Your task to perform on an android device: Go to display settings Image 0: 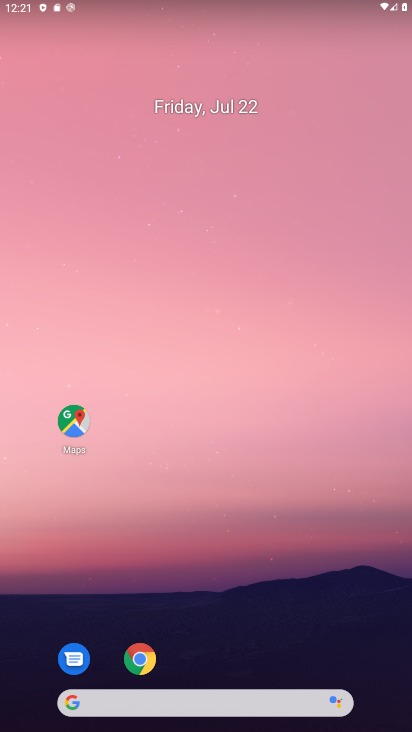
Step 0: drag from (230, 625) to (205, 384)
Your task to perform on an android device: Go to display settings Image 1: 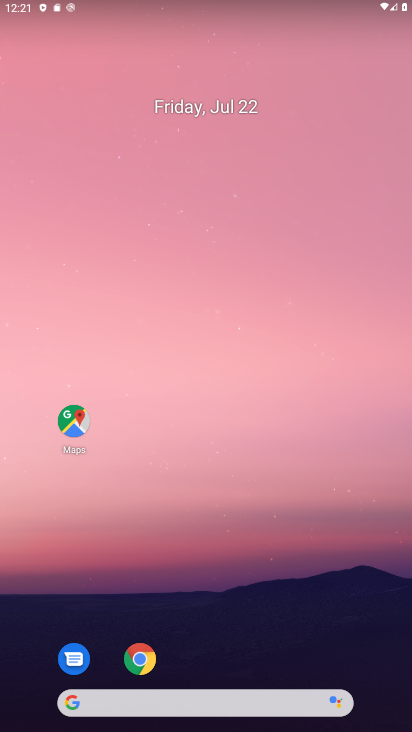
Step 1: drag from (233, 673) to (239, 505)
Your task to perform on an android device: Go to display settings Image 2: 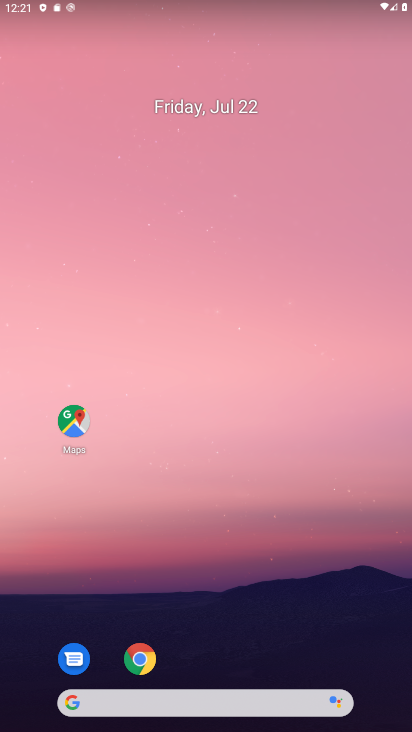
Step 2: drag from (260, 633) to (246, 202)
Your task to perform on an android device: Go to display settings Image 3: 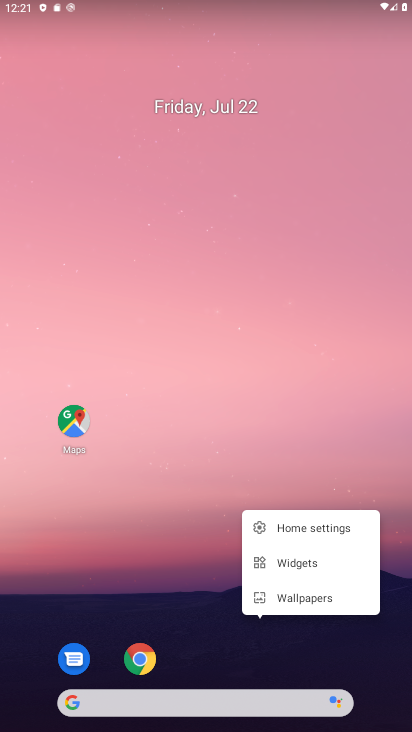
Step 3: click (168, 428)
Your task to perform on an android device: Go to display settings Image 4: 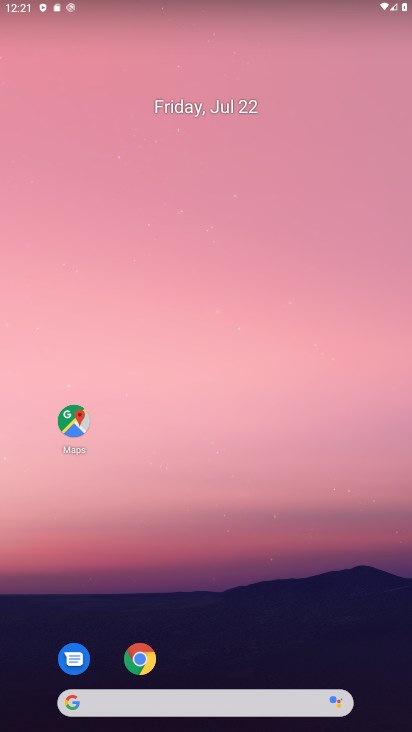
Step 4: drag from (251, 681) to (178, 2)
Your task to perform on an android device: Go to display settings Image 5: 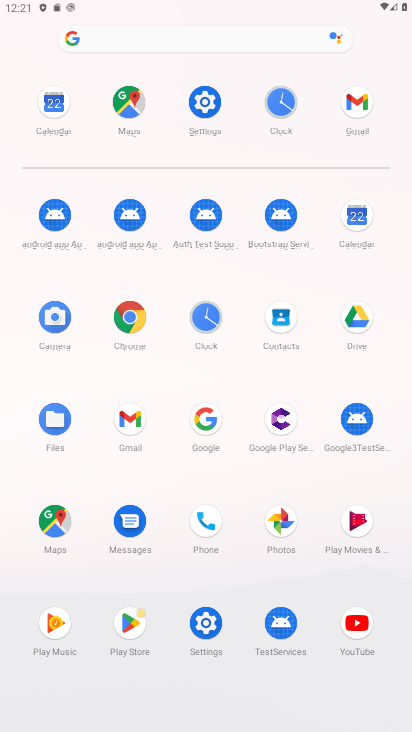
Step 5: click (217, 107)
Your task to perform on an android device: Go to display settings Image 6: 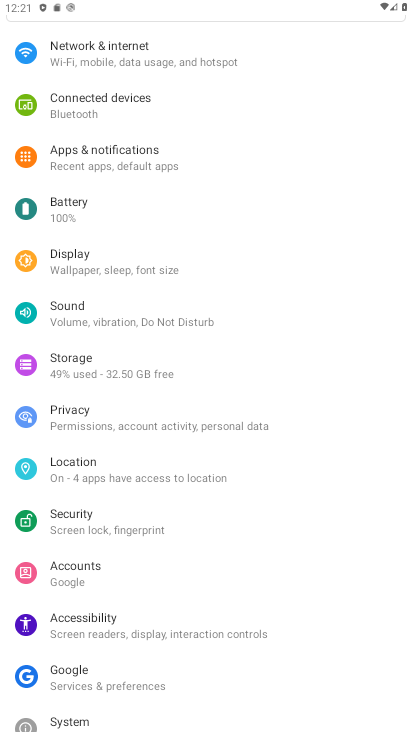
Step 6: click (125, 255)
Your task to perform on an android device: Go to display settings Image 7: 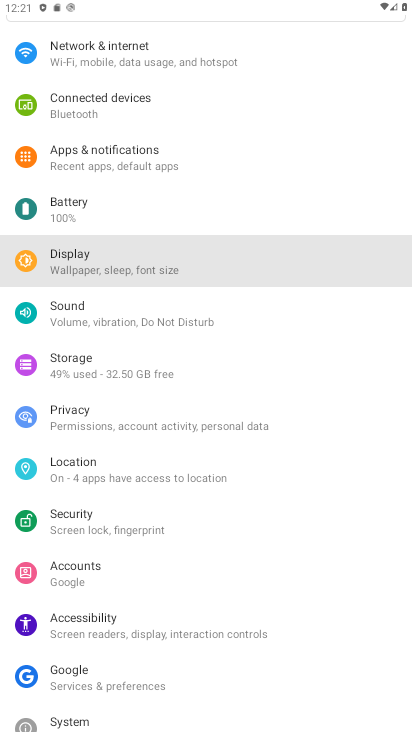
Step 7: task complete